Your task to perform on an android device: set the timer Image 0: 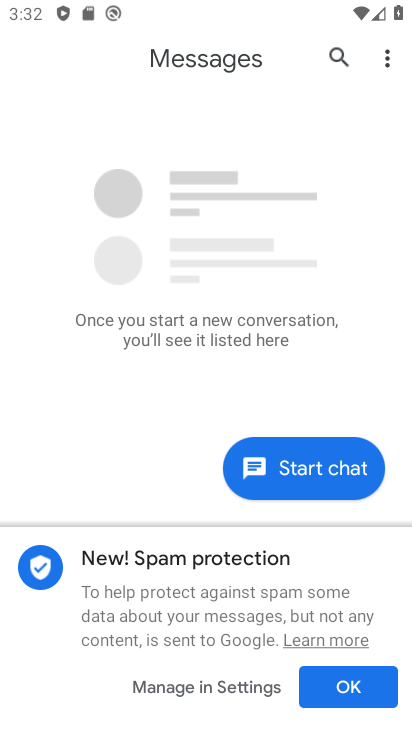
Step 0: press home button
Your task to perform on an android device: set the timer Image 1: 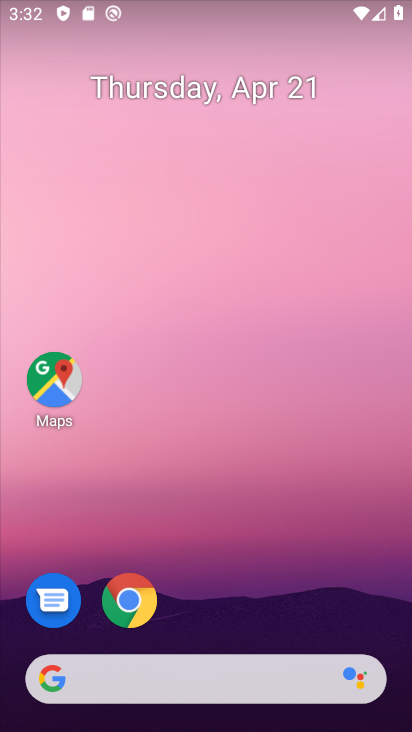
Step 1: drag from (200, 614) to (183, 38)
Your task to perform on an android device: set the timer Image 2: 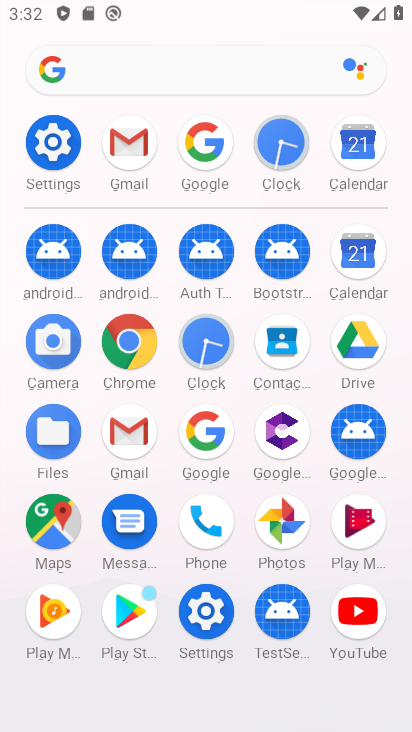
Step 2: click (281, 139)
Your task to perform on an android device: set the timer Image 3: 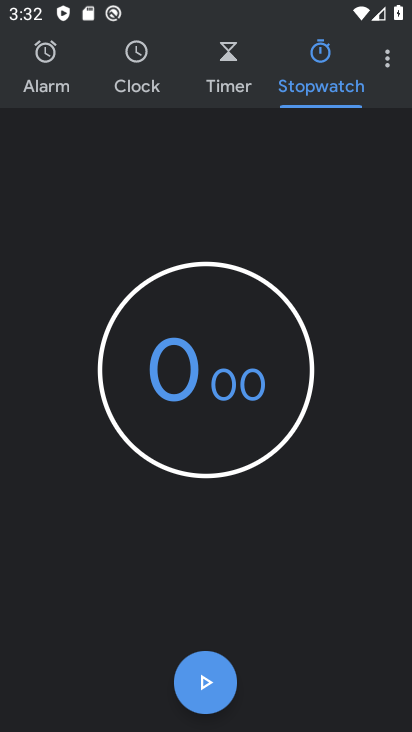
Step 3: click (224, 58)
Your task to perform on an android device: set the timer Image 4: 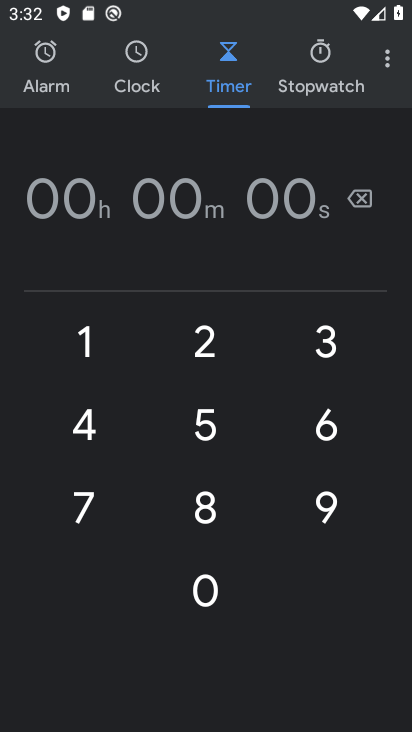
Step 4: type "123"
Your task to perform on an android device: set the timer Image 5: 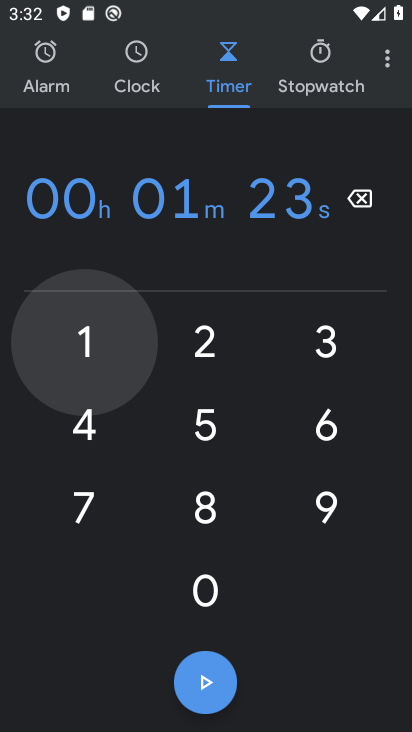
Step 5: click (204, 692)
Your task to perform on an android device: set the timer Image 6: 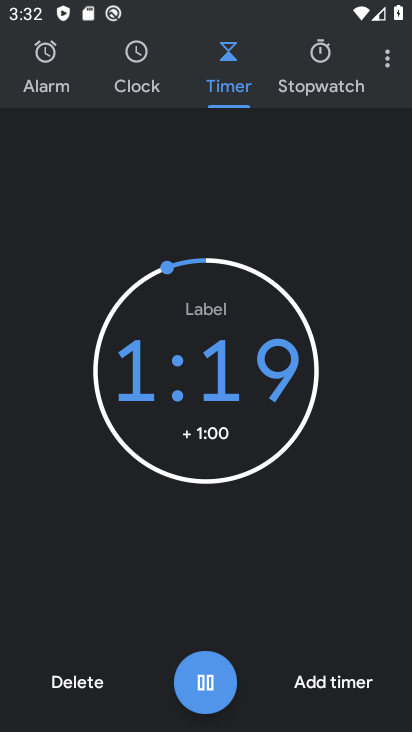
Step 6: click (204, 692)
Your task to perform on an android device: set the timer Image 7: 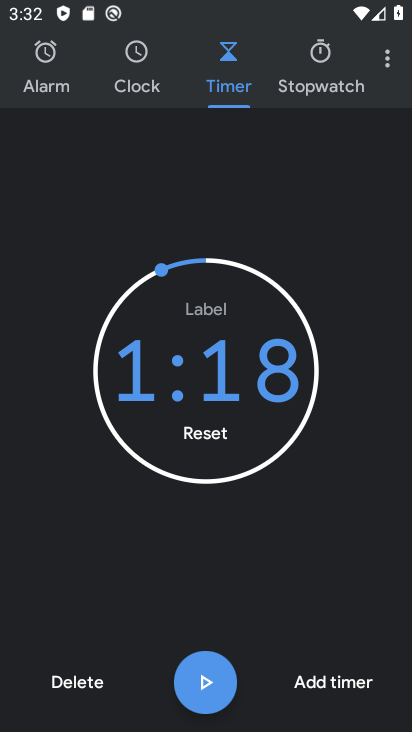
Step 7: task complete